Your task to perform on an android device: turn smart compose on in the gmail app Image 0: 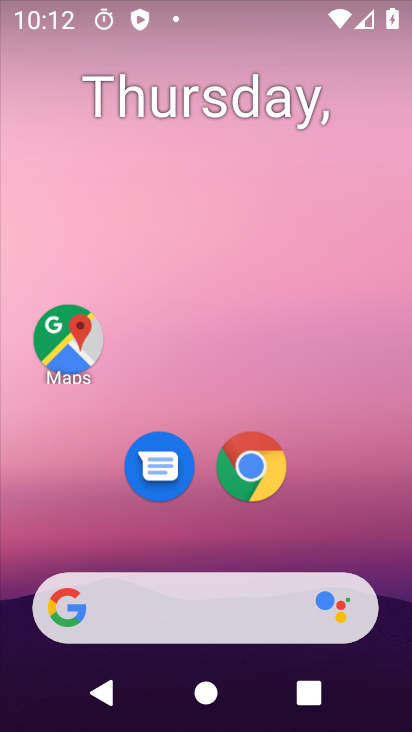
Step 0: drag from (205, 592) to (386, 112)
Your task to perform on an android device: turn smart compose on in the gmail app Image 1: 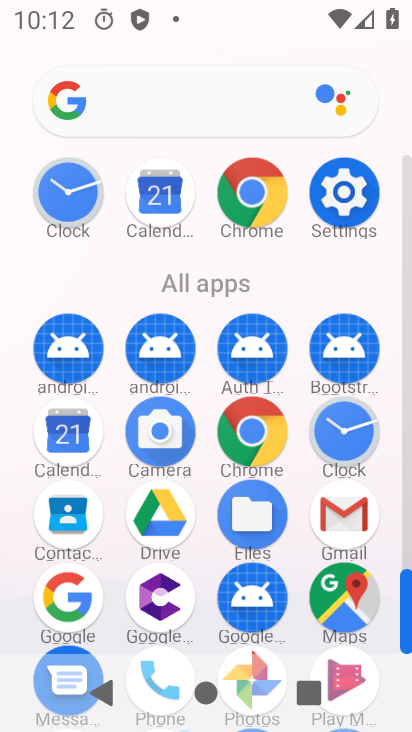
Step 1: click (353, 527)
Your task to perform on an android device: turn smart compose on in the gmail app Image 2: 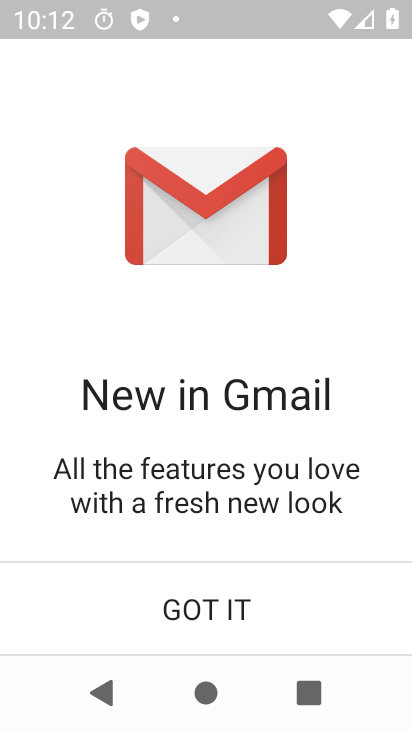
Step 2: click (204, 621)
Your task to perform on an android device: turn smart compose on in the gmail app Image 3: 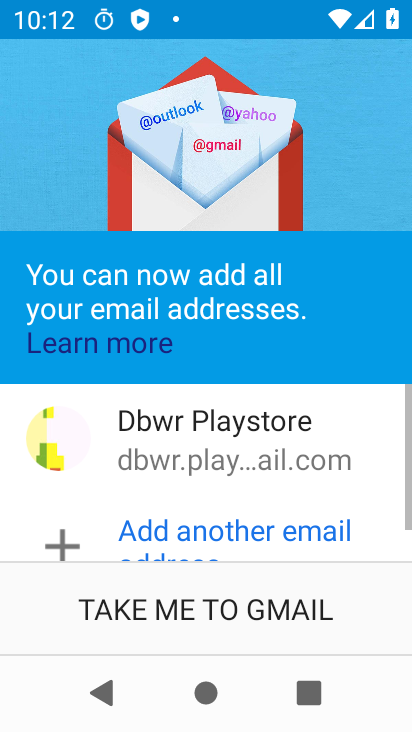
Step 3: click (211, 617)
Your task to perform on an android device: turn smart compose on in the gmail app Image 4: 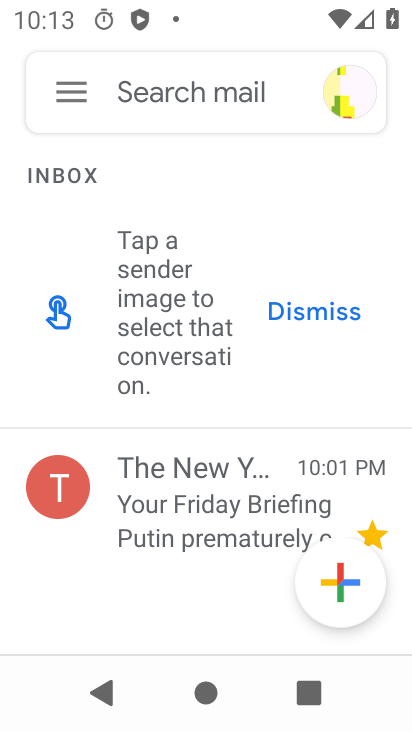
Step 4: click (78, 97)
Your task to perform on an android device: turn smart compose on in the gmail app Image 5: 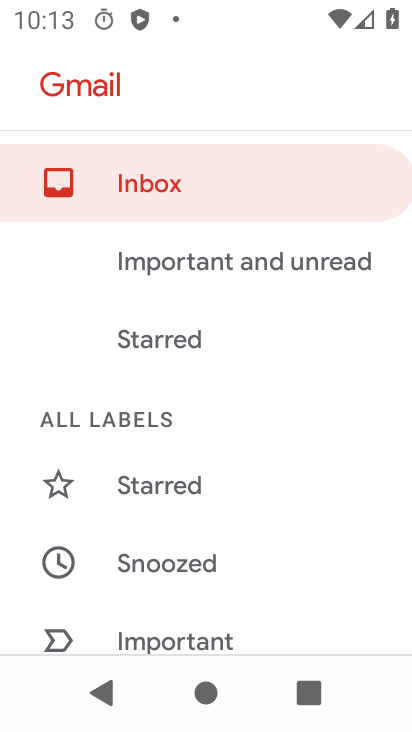
Step 5: drag from (225, 592) to (268, 292)
Your task to perform on an android device: turn smart compose on in the gmail app Image 6: 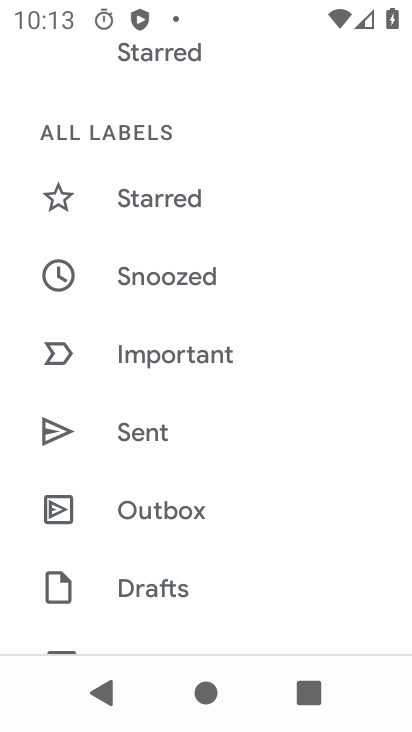
Step 6: drag from (194, 595) to (224, 209)
Your task to perform on an android device: turn smart compose on in the gmail app Image 7: 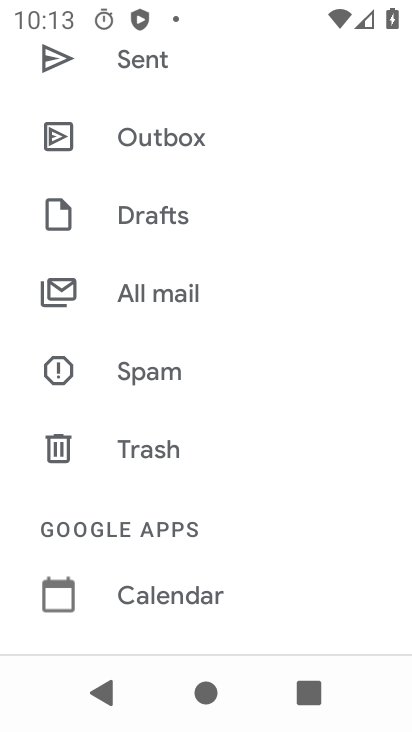
Step 7: drag from (245, 582) to (258, 137)
Your task to perform on an android device: turn smart compose on in the gmail app Image 8: 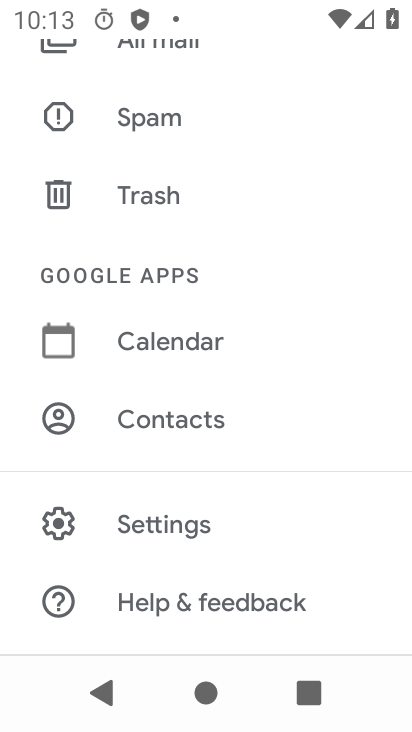
Step 8: click (165, 522)
Your task to perform on an android device: turn smart compose on in the gmail app Image 9: 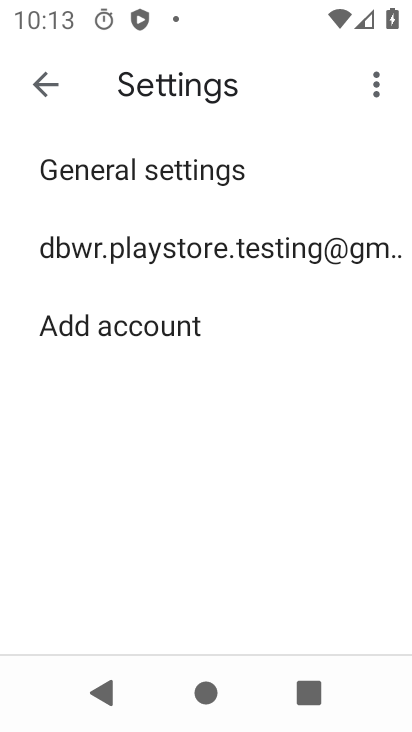
Step 9: click (215, 246)
Your task to perform on an android device: turn smart compose on in the gmail app Image 10: 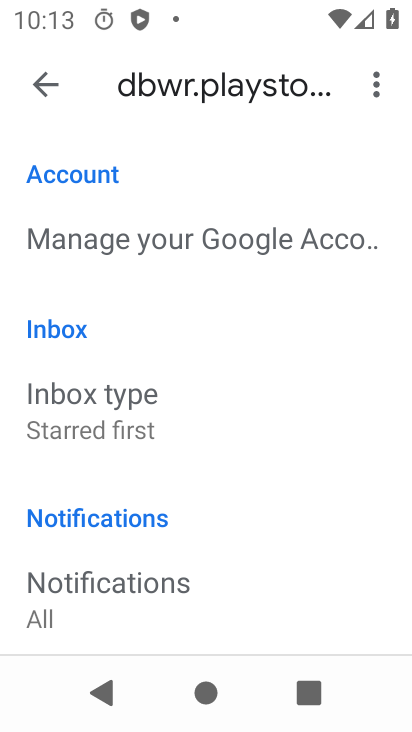
Step 10: task complete